Your task to perform on an android device: toggle translation in the chrome app Image 0: 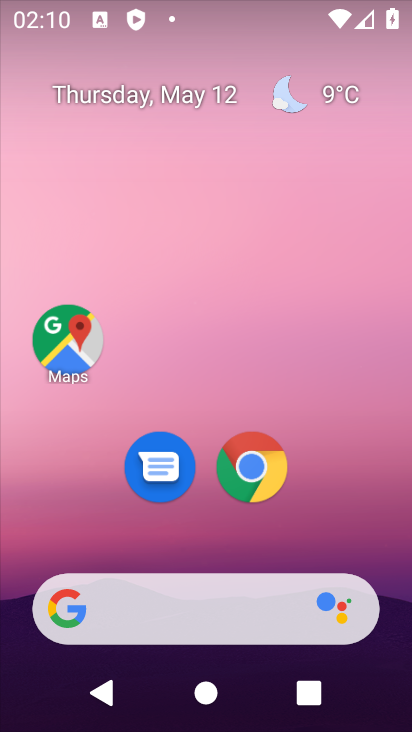
Step 0: drag from (340, 491) to (367, 200)
Your task to perform on an android device: toggle translation in the chrome app Image 1: 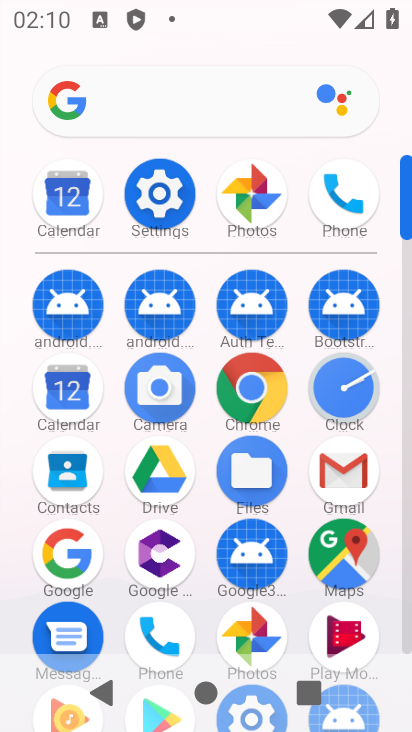
Step 1: click (272, 377)
Your task to perform on an android device: toggle translation in the chrome app Image 2: 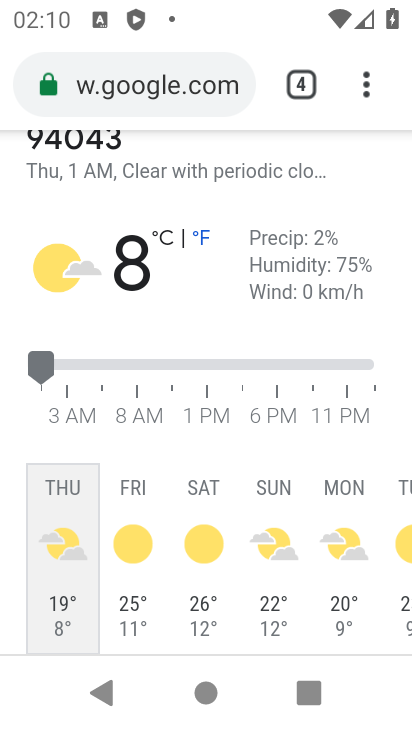
Step 2: click (351, 81)
Your task to perform on an android device: toggle translation in the chrome app Image 3: 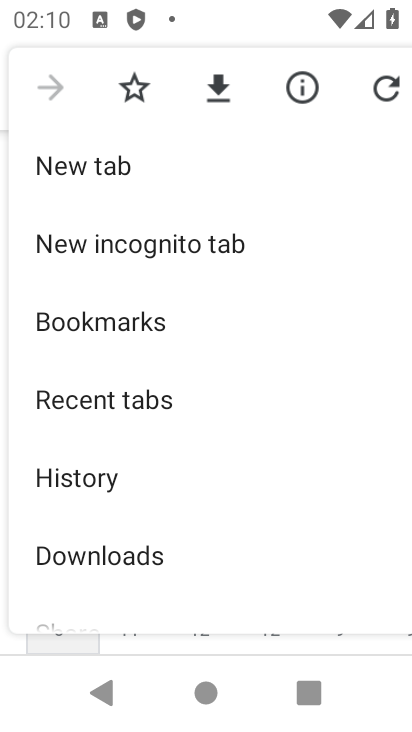
Step 3: drag from (148, 509) to (219, 190)
Your task to perform on an android device: toggle translation in the chrome app Image 4: 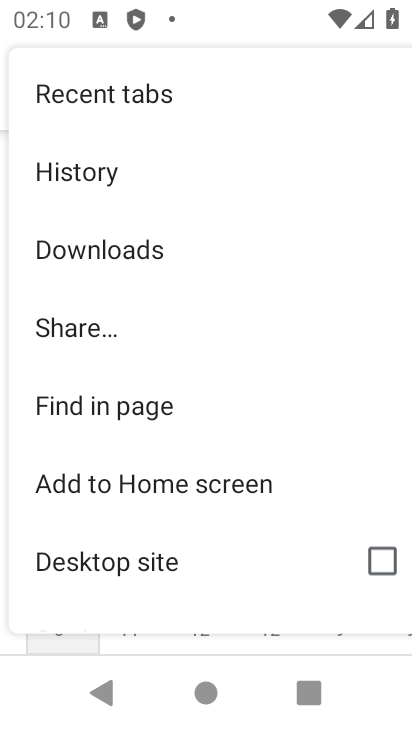
Step 4: drag from (101, 544) to (228, 145)
Your task to perform on an android device: toggle translation in the chrome app Image 5: 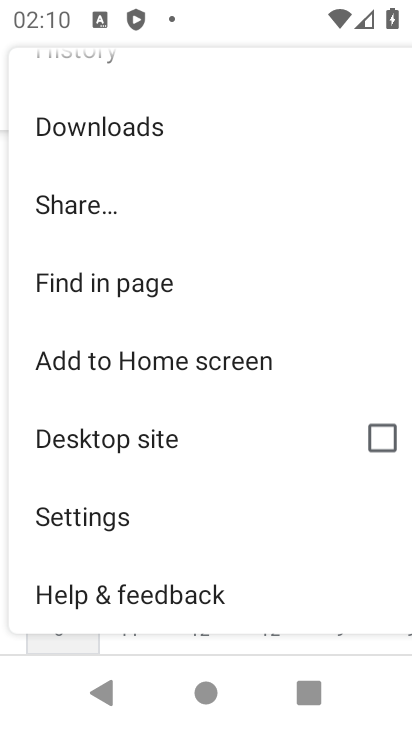
Step 5: click (53, 522)
Your task to perform on an android device: toggle translation in the chrome app Image 6: 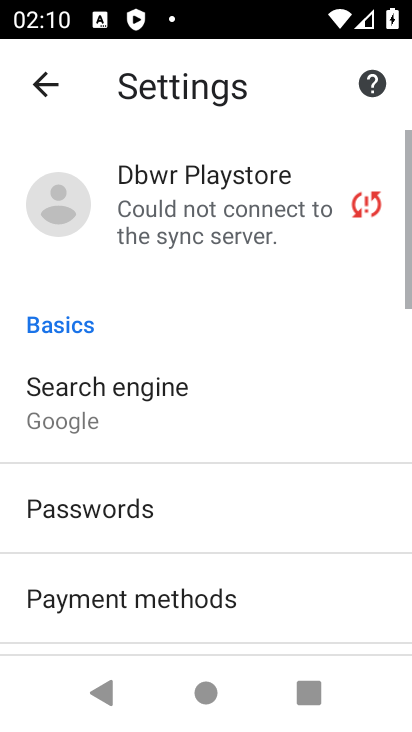
Step 6: drag from (175, 577) to (280, 178)
Your task to perform on an android device: toggle translation in the chrome app Image 7: 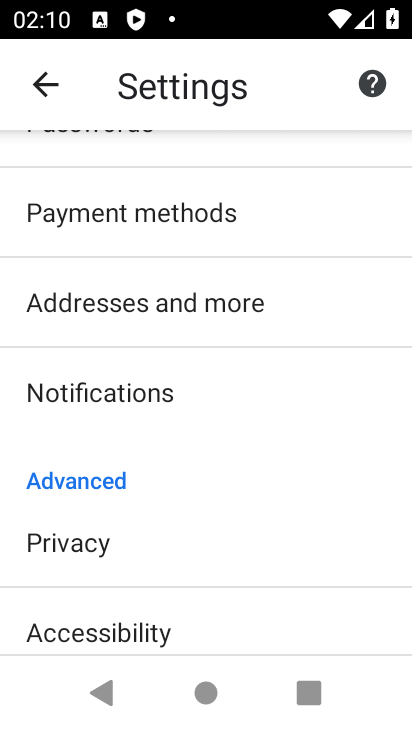
Step 7: drag from (143, 568) to (235, 185)
Your task to perform on an android device: toggle translation in the chrome app Image 8: 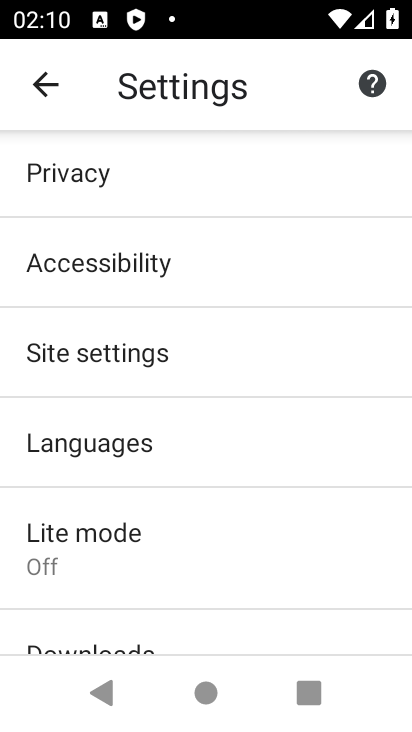
Step 8: click (133, 432)
Your task to perform on an android device: toggle translation in the chrome app Image 9: 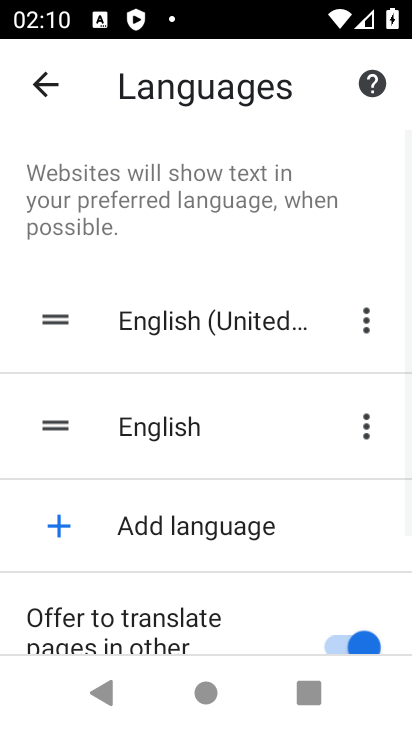
Step 9: click (345, 636)
Your task to perform on an android device: toggle translation in the chrome app Image 10: 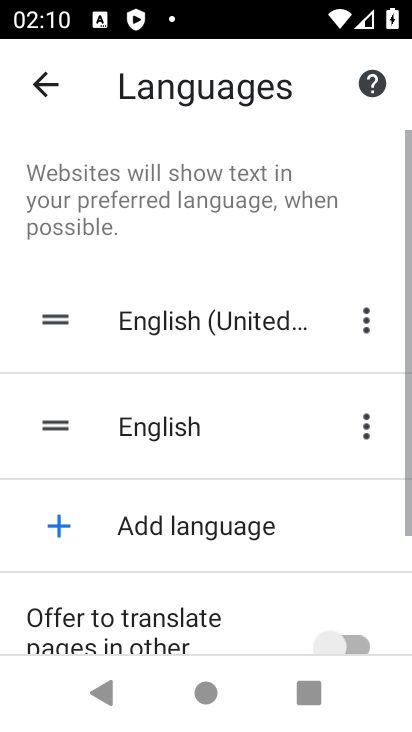
Step 10: task complete